Your task to perform on an android device: Check the news Image 0: 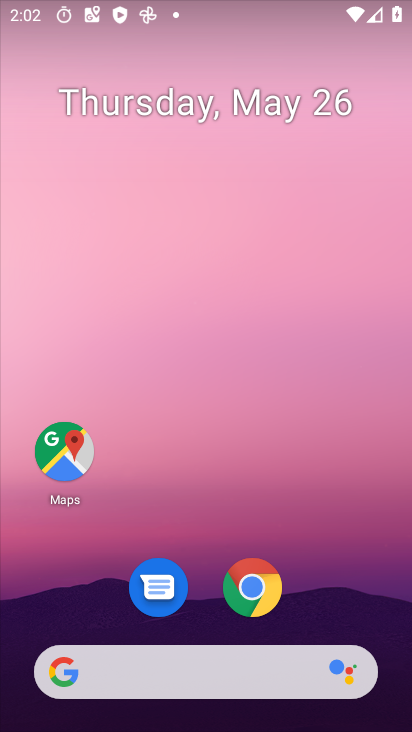
Step 0: drag from (17, 244) to (407, 353)
Your task to perform on an android device: Check the news Image 1: 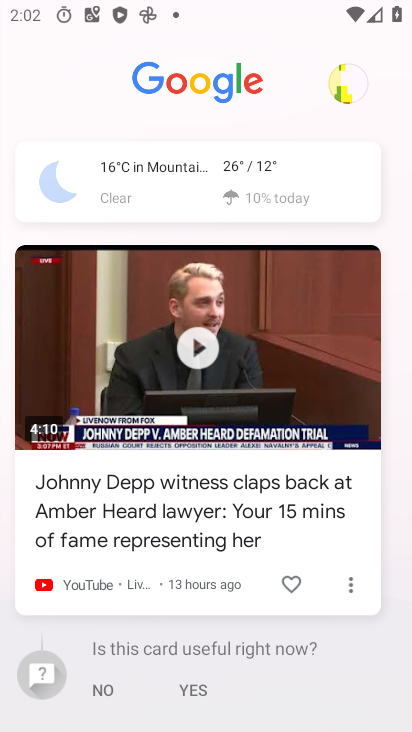
Step 1: task complete